Your task to perform on an android device: Open my contact list Image 0: 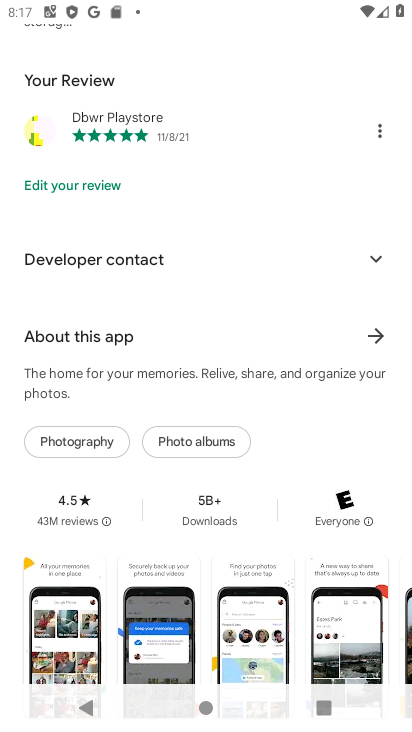
Step 0: press home button
Your task to perform on an android device: Open my contact list Image 1: 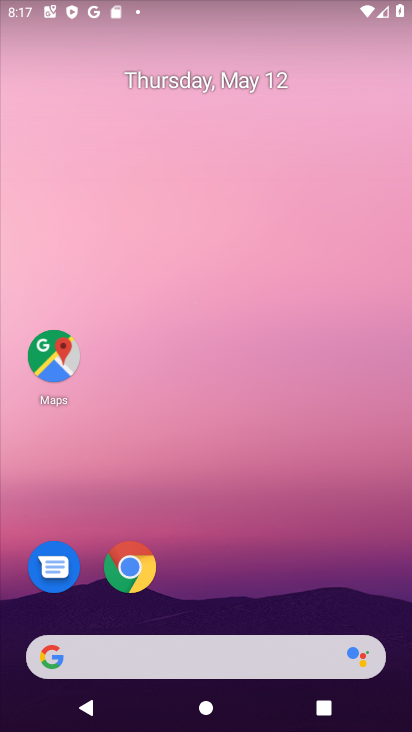
Step 1: drag from (214, 656) to (191, 268)
Your task to perform on an android device: Open my contact list Image 2: 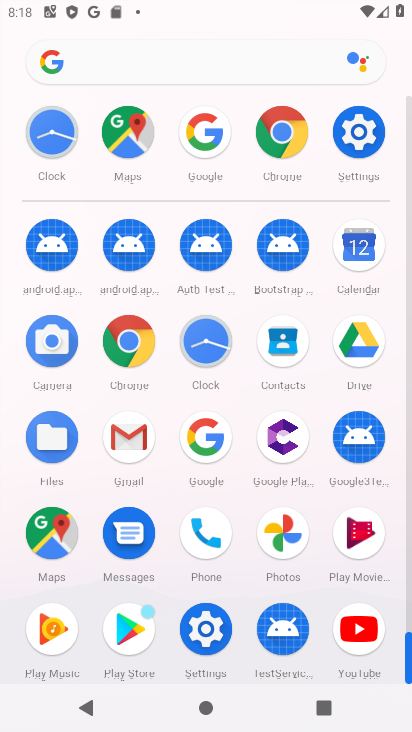
Step 2: click (289, 351)
Your task to perform on an android device: Open my contact list Image 3: 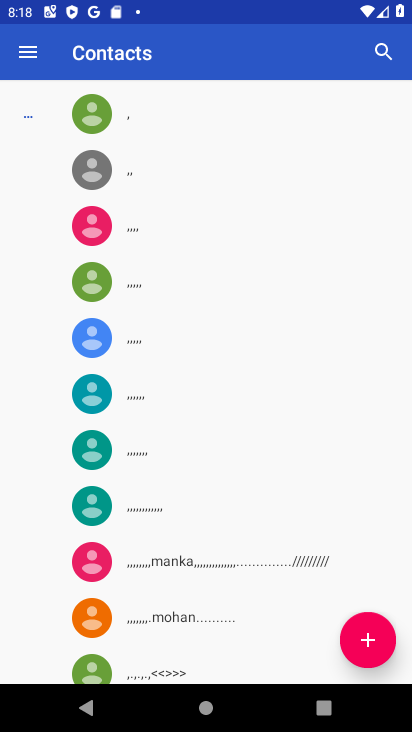
Step 3: task complete